Your task to perform on an android device: Search for pizza restaurants on Maps Image 0: 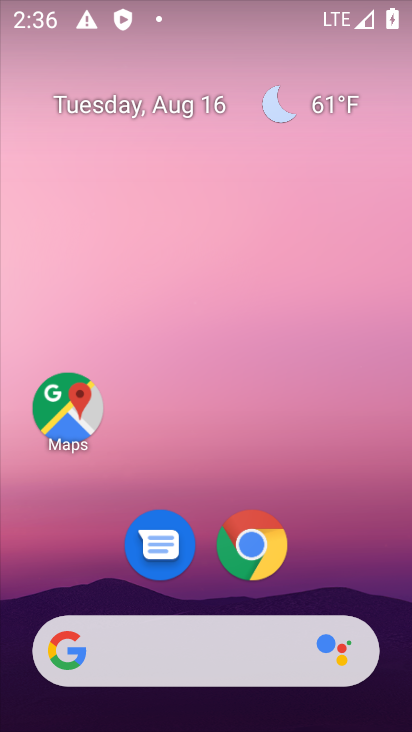
Step 0: drag from (203, 560) to (83, 78)
Your task to perform on an android device: Search for pizza restaurants on Maps Image 1: 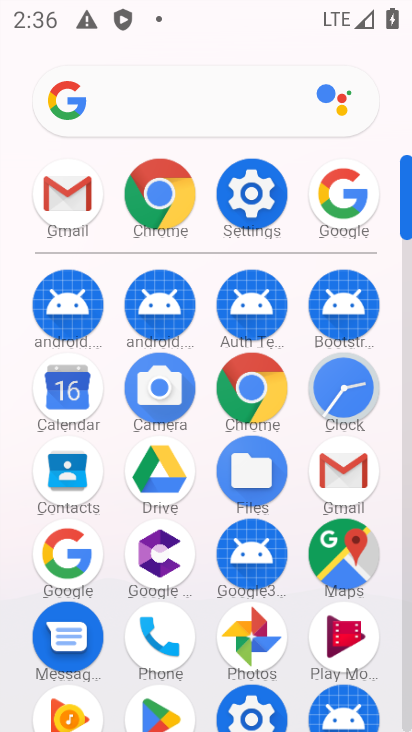
Step 1: click (354, 543)
Your task to perform on an android device: Search for pizza restaurants on Maps Image 2: 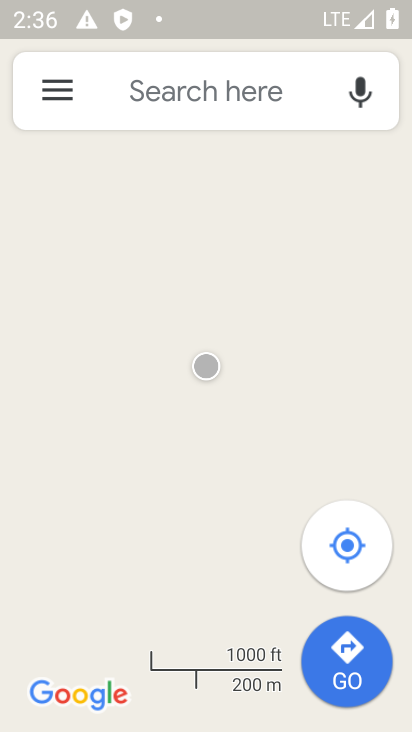
Step 2: click (165, 91)
Your task to perform on an android device: Search for pizza restaurants on Maps Image 3: 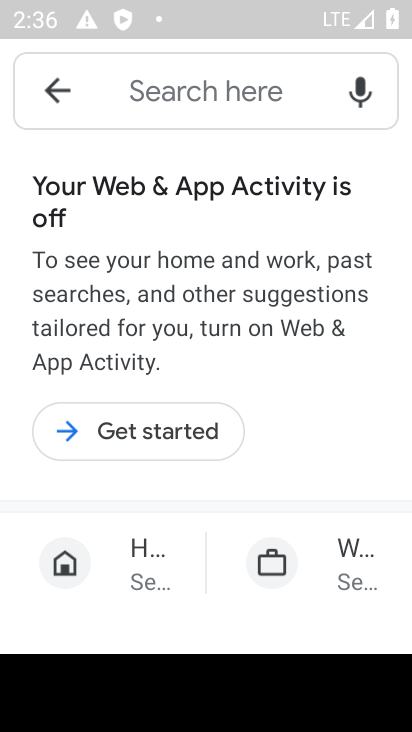
Step 3: click (176, 290)
Your task to perform on an android device: Search for pizza restaurants on Maps Image 4: 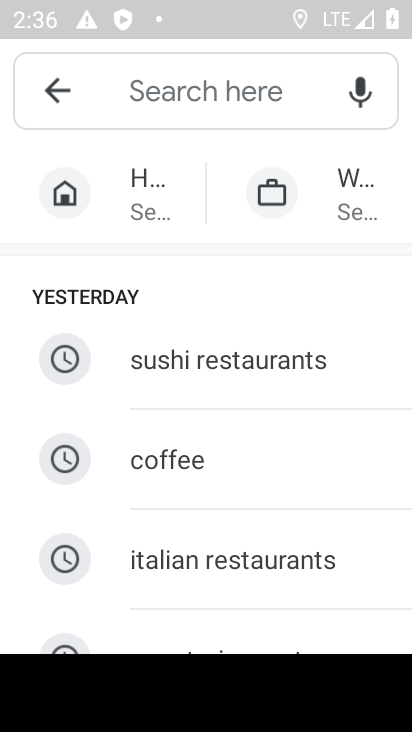
Step 4: drag from (165, 563) to (131, 280)
Your task to perform on an android device: Search for pizza restaurants on Maps Image 5: 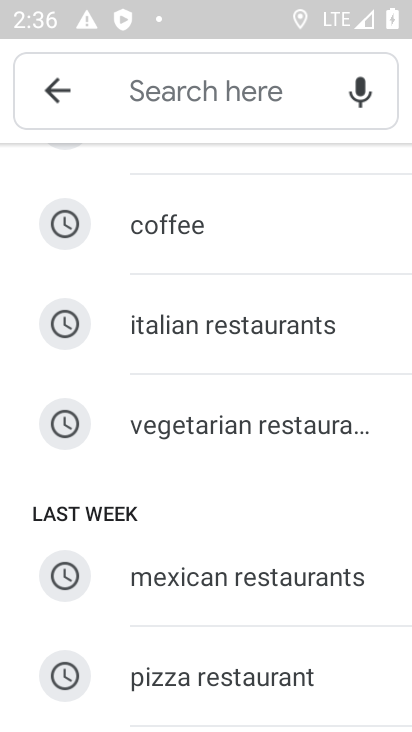
Step 5: click (199, 672)
Your task to perform on an android device: Search for pizza restaurants on Maps Image 6: 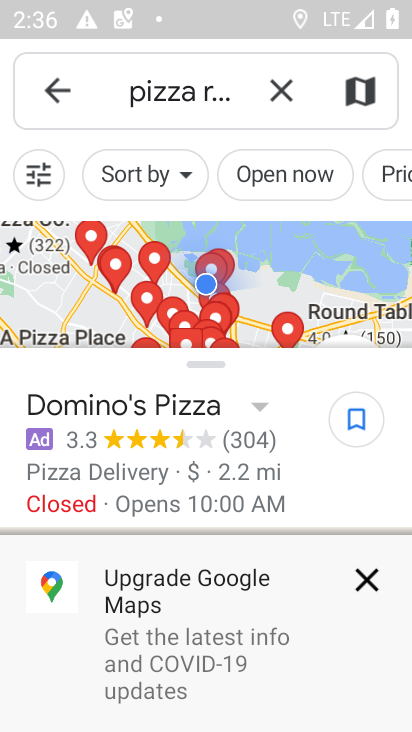
Step 6: task complete